Your task to perform on an android device: turn on improve location accuracy Image 0: 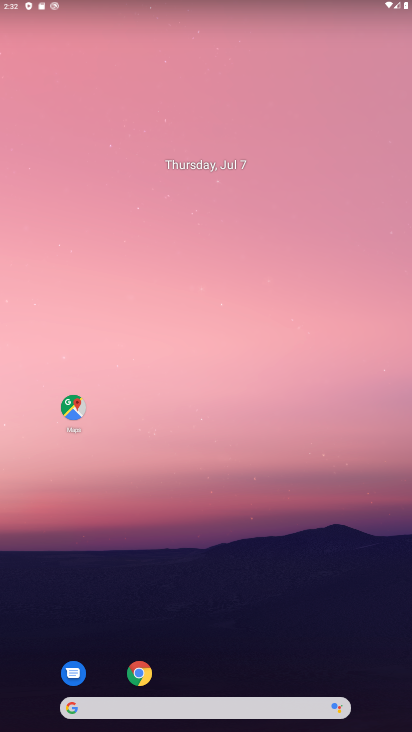
Step 0: drag from (258, 576) to (284, 77)
Your task to perform on an android device: turn on improve location accuracy Image 1: 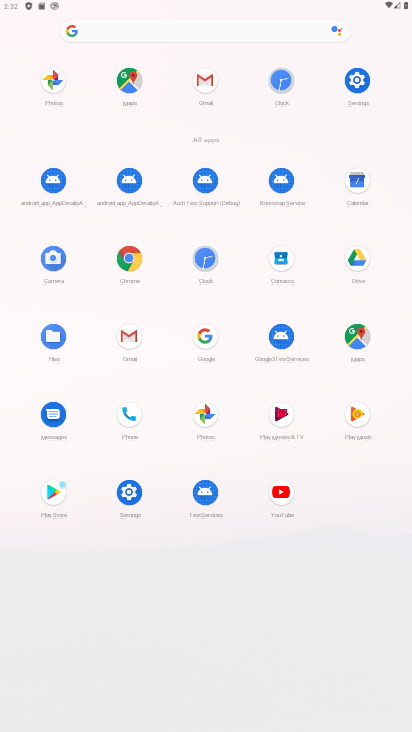
Step 1: click (272, 271)
Your task to perform on an android device: turn on improve location accuracy Image 2: 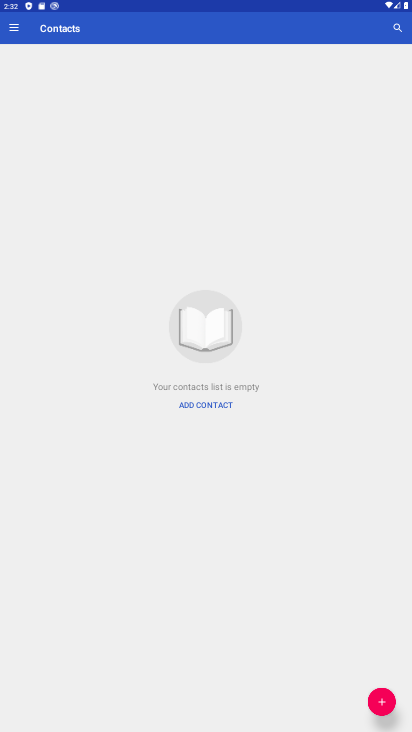
Step 2: press home button
Your task to perform on an android device: turn on improve location accuracy Image 3: 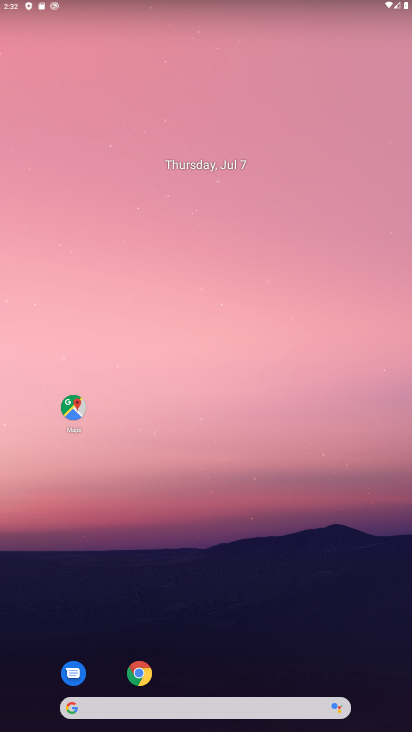
Step 3: drag from (226, 650) to (235, 189)
Your task to perform on an android device: turn on improve location accuracy Image 4: 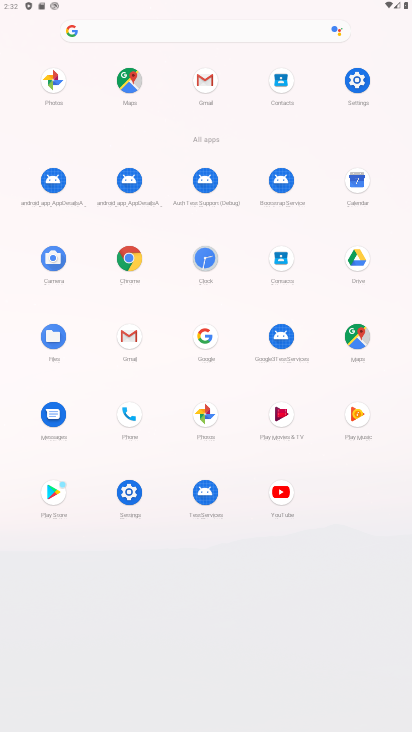
Step 4: click (131, 499)
Your task to perform on an android device: turn on improve location accuracy Image 5: 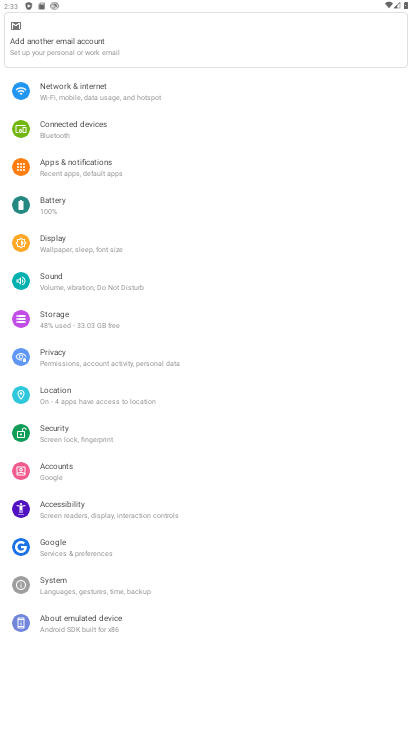
Step 5: click (113, 398)
Your task to perform on an android device: turn on improve location accuracy Image 6: 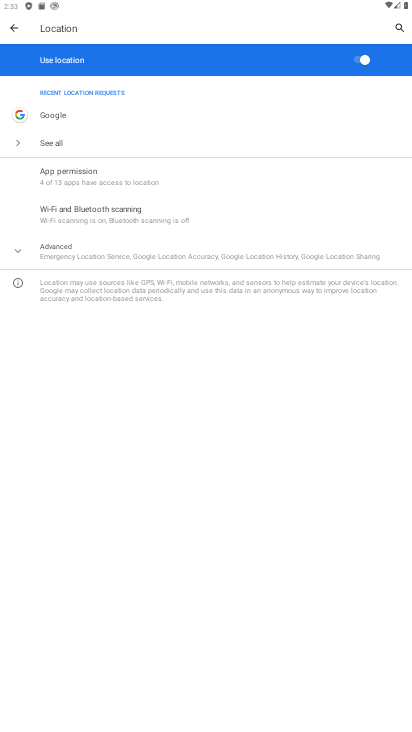
Step 6: click (103, 251)
Your task to perform on an android device: turn on improve location accuracy Image 7: 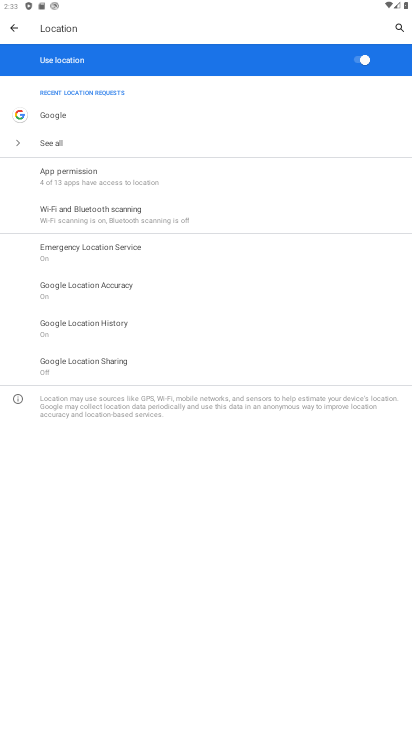
Step 7: click (98, 296)
Your task to perform on an android device: turn on improve location accuracy Image 8: 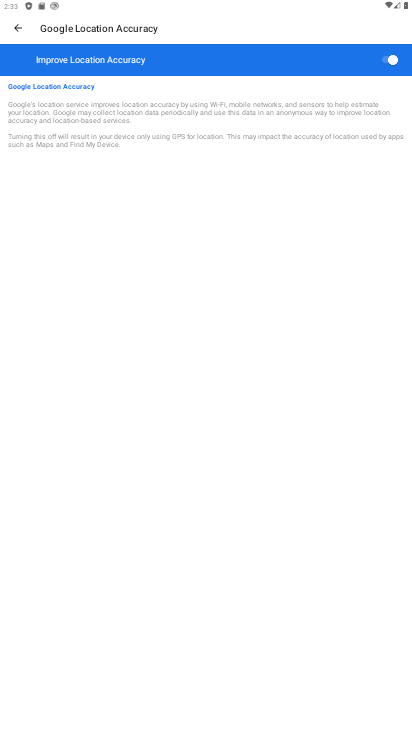
Step 8: task complete